Your task to perform on an android device: Open Chrome and go to settings Image 0: 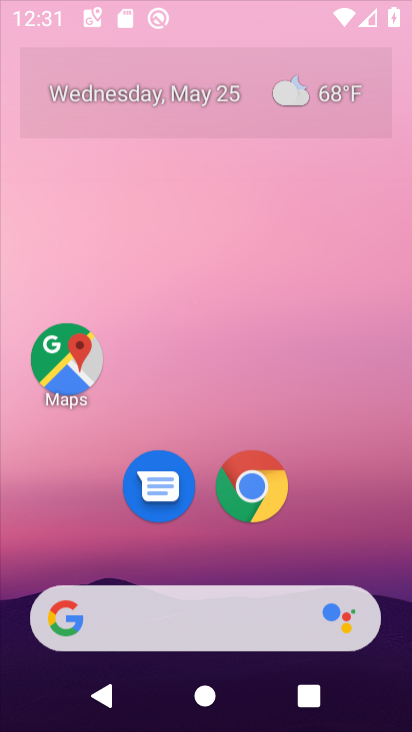
Step 0: click (239, 185)
Your task to perform on an android device: Open Chrome and go to settings Image 1: 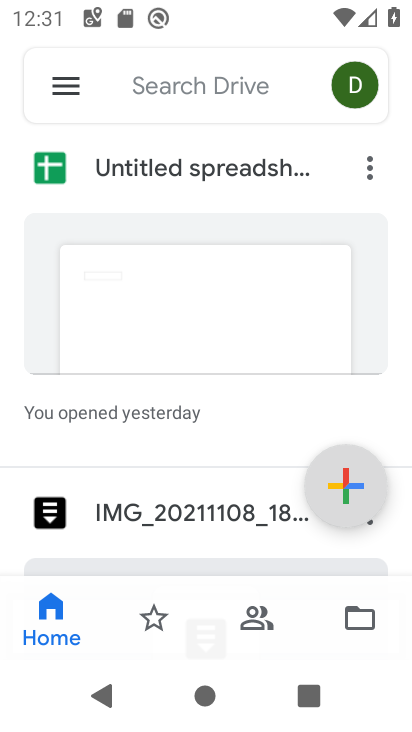
Step 1: press home button
Your task to perform on an android device: Open Chrome and go to settings Image 2: 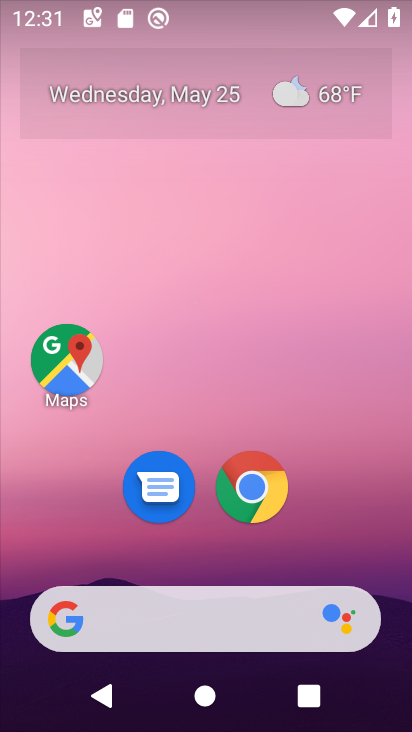
Step 2: click (249, 482)
Your task to perform on an android device: Open Chrome and go to settings Image 3: 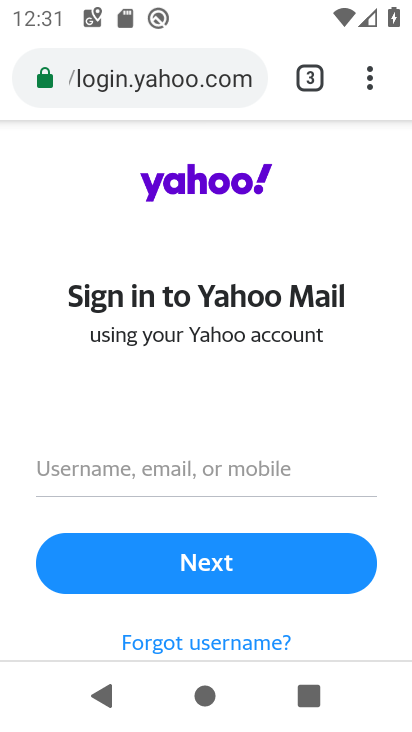
Step 3: task complete